Your task to perform on an android device: Go to privacy settings Image 0: 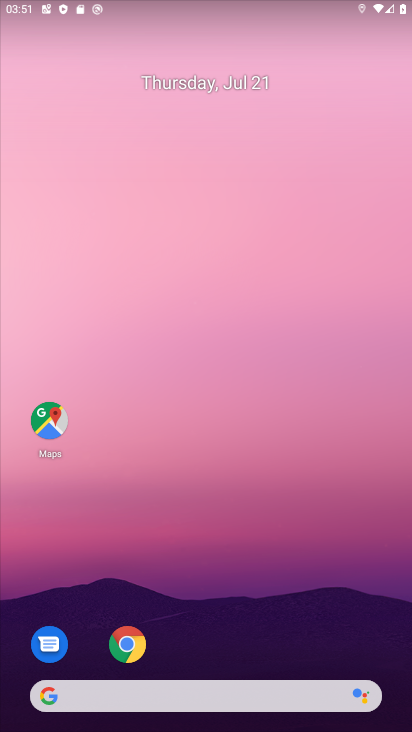
Step 0: drag from (253, 666) to (260, 26)
Your task to perform on an android device: Go to privacy settings Image 1: 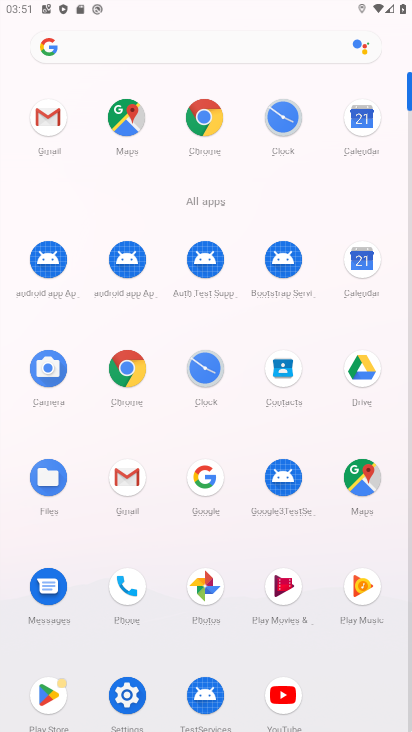
Step 1: click (128, 694)
Your task to perform on an android device: Go to privacy settings Image 2: 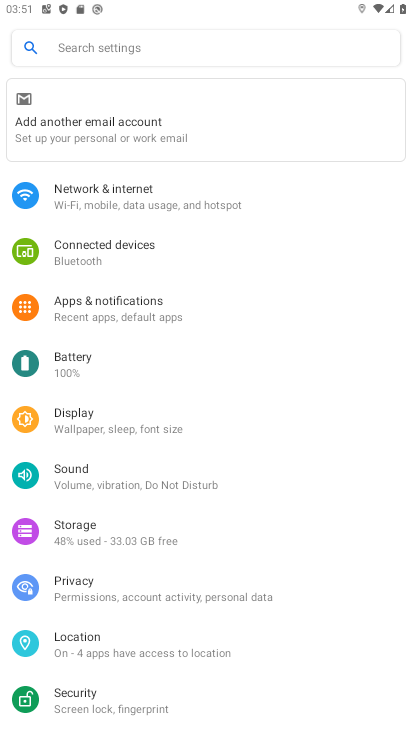
Step 2: click (85, 585)
Your task to perform on an android device: Go to privacy settings Image 3: 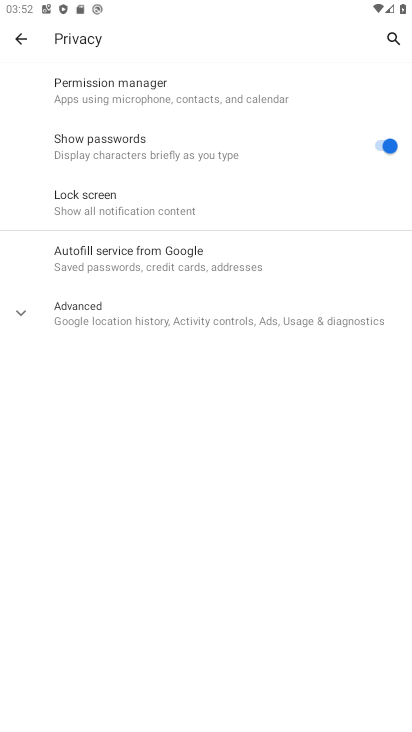
Step 3: task complete